Your task to perform on an android device: Search for sushi restaurants on Maps Image 0: 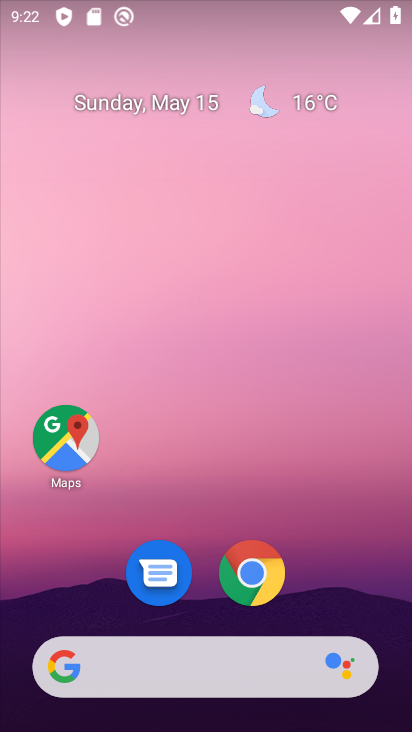
Step 0: click (73, 442)
Your task to perform on an android device: Search for sushi restaurants on Maps Image 1: 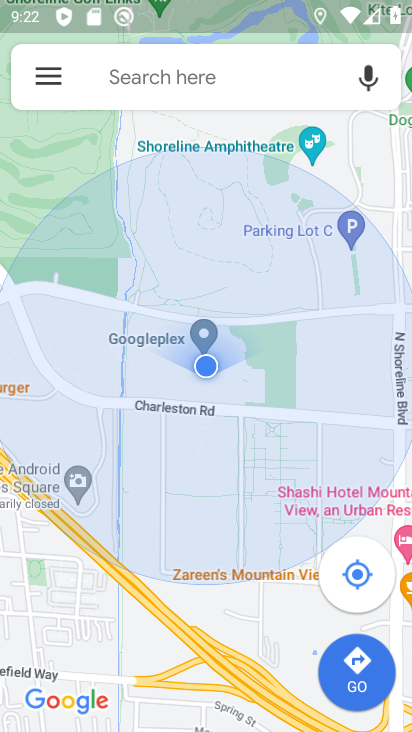
Step 1: click (237, 75)
Your task to perform on an android device: Search for sushi restaurants on Maps Image 2: 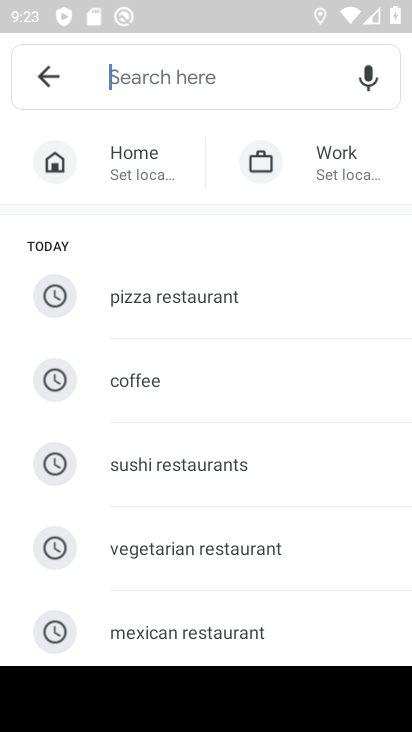
Step 2: click (130, 73)
Your task to perform on an android device: Search for sushi restaurants on Maps Image 3: 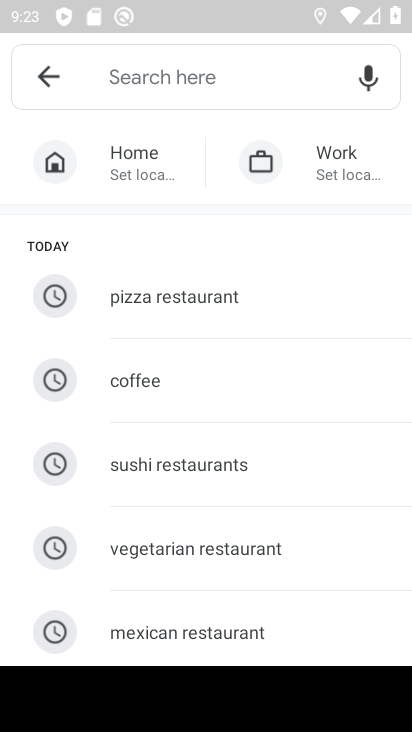
Step 3: click (139, 70)
Your task to perform on an android device: Search for sushi restaurants on Maps Image 4: 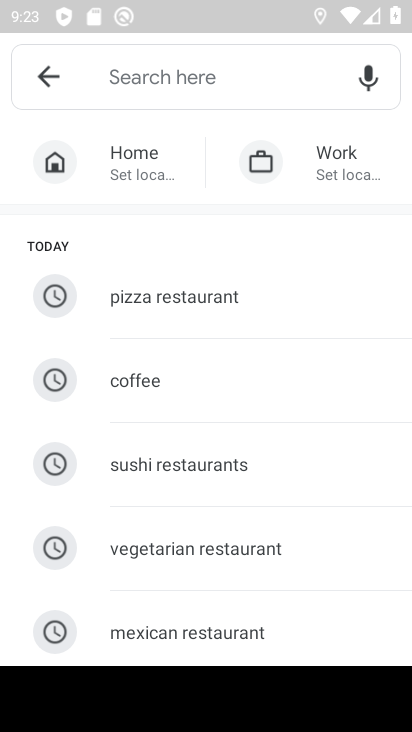
Step 4: click (139, 75)
Your task to perform on an android device: Search for sushi restaurants on Maps Image 5: 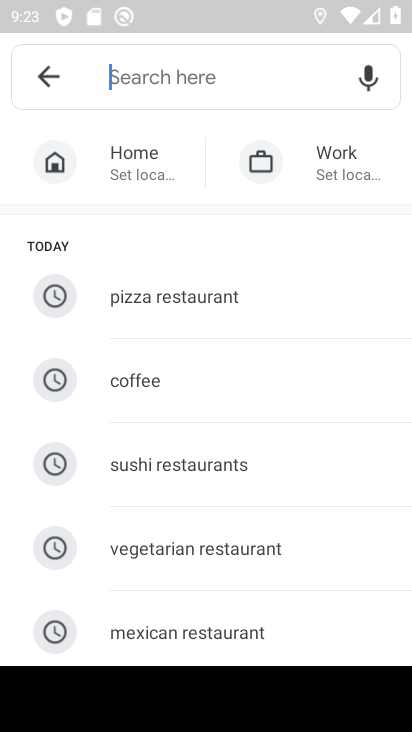
Step 5: type "sushi restaurants"
Your task to perform on an android device: Search for sushi restaurants on Maps Image 6: 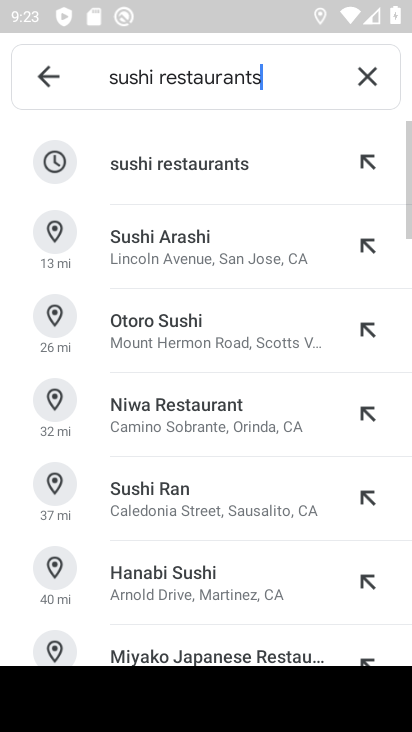
Step 6: click (198, 159)
Your task to perform on an android device: Search for sushi restaurants on Maps Image 7: 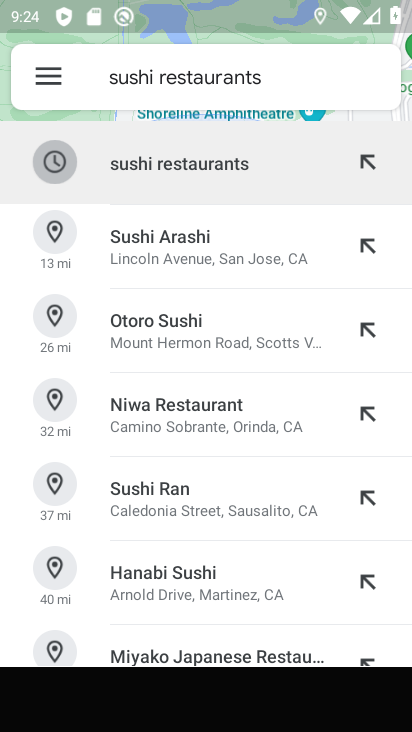
Step 7: click (200, 163)
Your task to perform on an android device: Search for sushi restaurants on Maps Image 8: 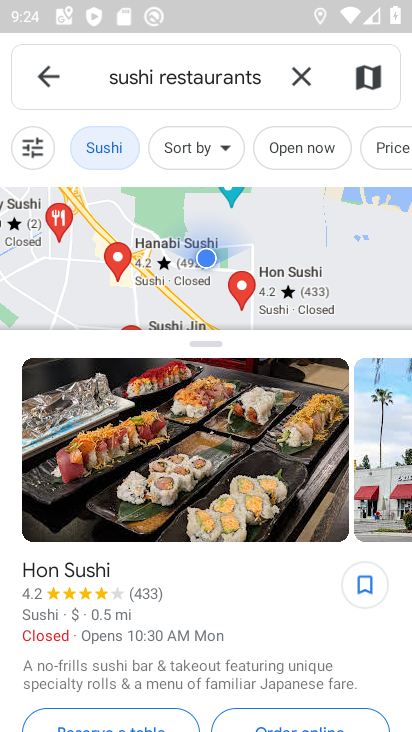
Step 8: task complete